Your task to perform on an android device: turn on improve location accuracy Image 0: 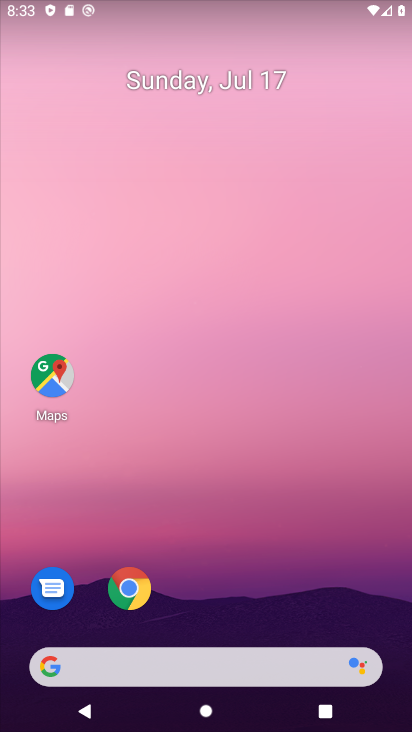
Step 0: drag from (208, 639) to (209, 113)
Your task to perform on an android device: turn on improve location accuracy Image 1: 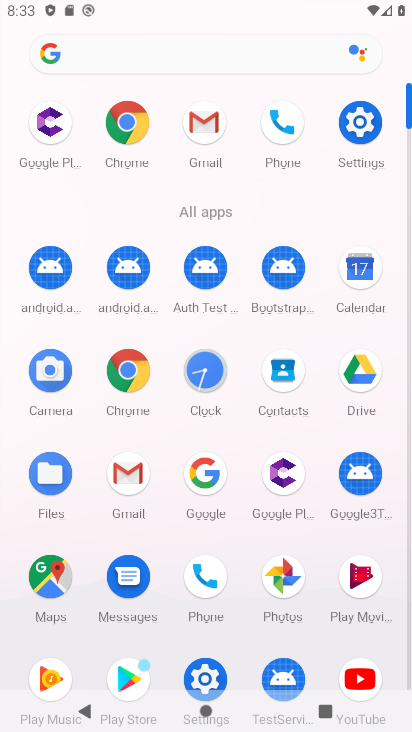
Step 1: click (363, 145)
Your task to perform on an android device: turn on improve location accuracy Image 2: 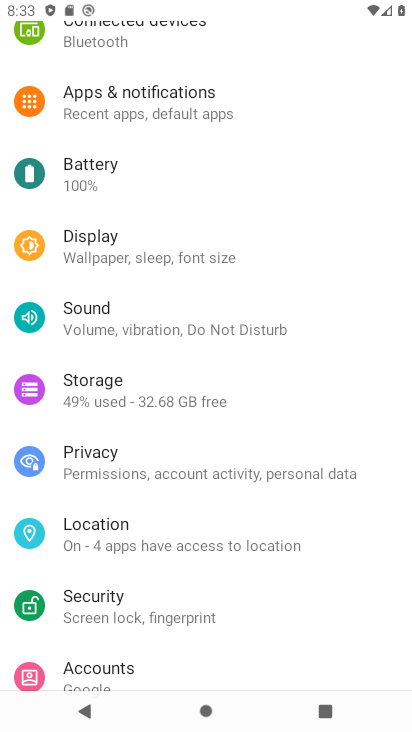
Step 2: click (101, 539)
Your task to perform on an android device: turn on improve location accuracy Image 3: 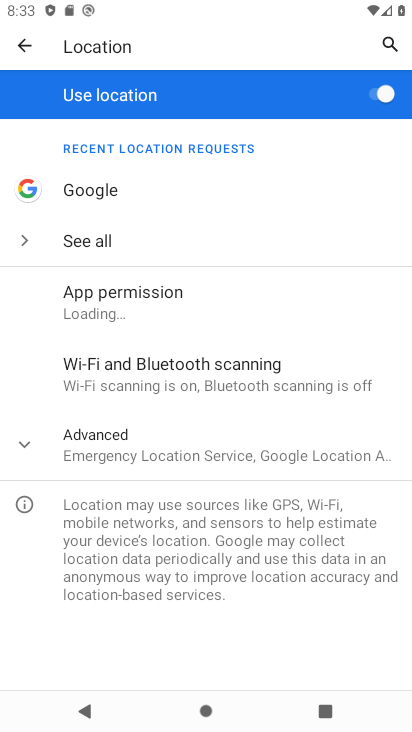
Step 3: click (78, 428)
Your task to perform on an android device: turn on improve location accuracy Image 4: 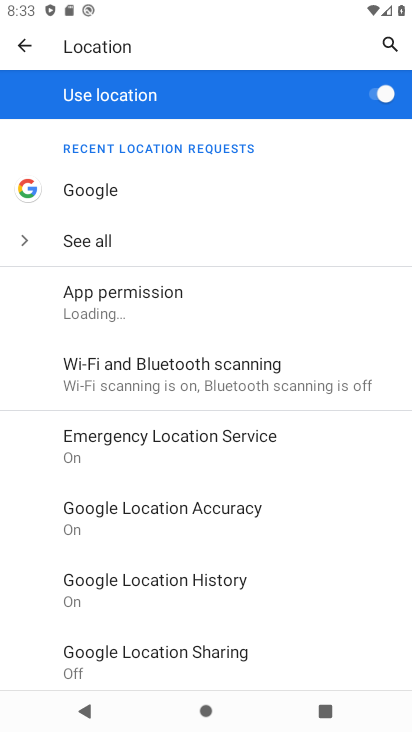
Step 4: click (220, 498)
Your task to perform on an android device: turn on improve location accuracy Image 5: 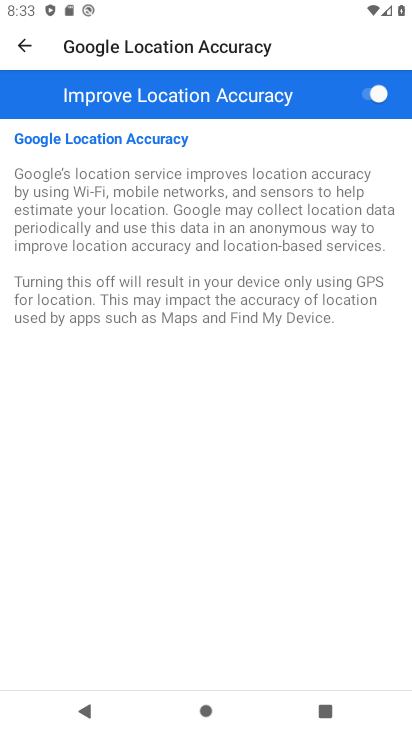
Step 5: task complete